Your task to perform on an android device: turn off location history Image 0: 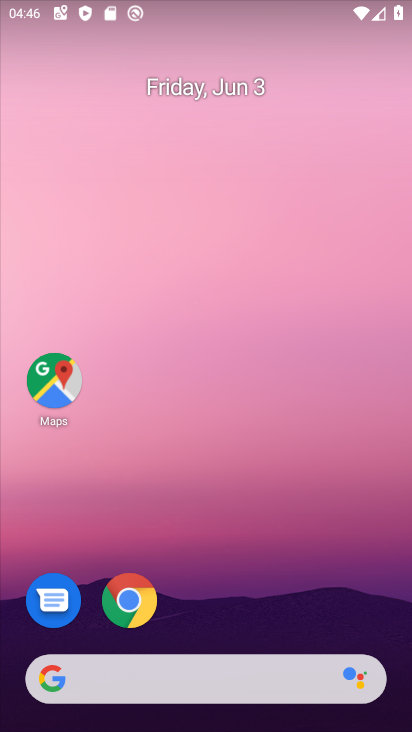
Step 0: drag from (233, 621) to (287, 154)
Your task to perform on an android device: turn off location history Image 1: 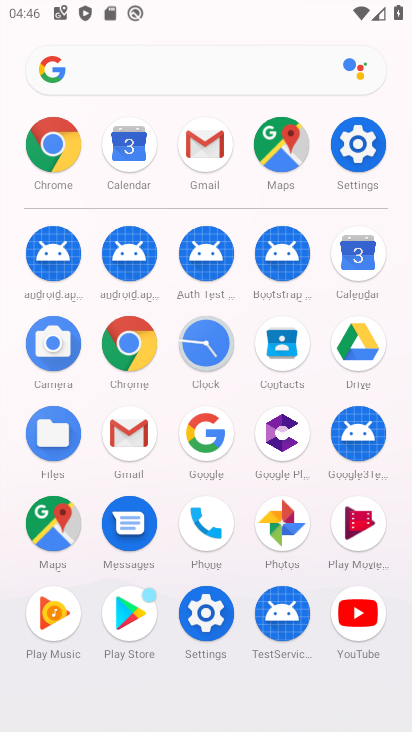
Step 1: click (359, 165)
Your task to perform on an android device: turn off location history Image 2: 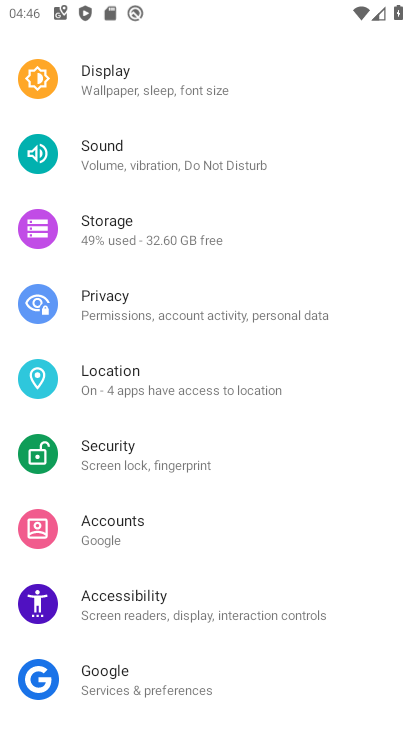
Step 2: click (151, 366)
Your task to perform on an android device: turn off location history Image 3: 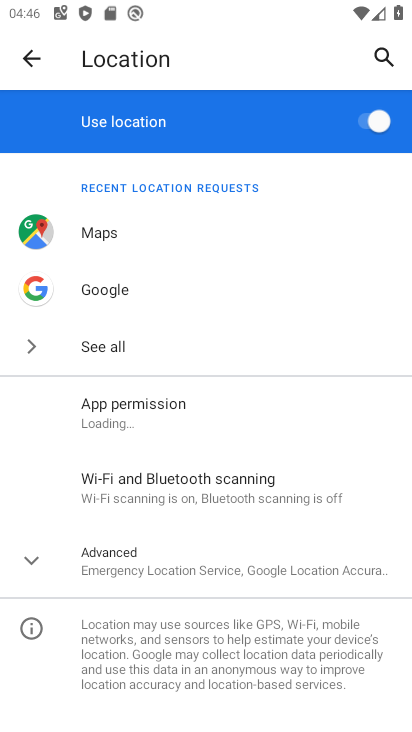
Step 3: click (173, 568)
Your task to perform on an android device: turn off location history Image 4: 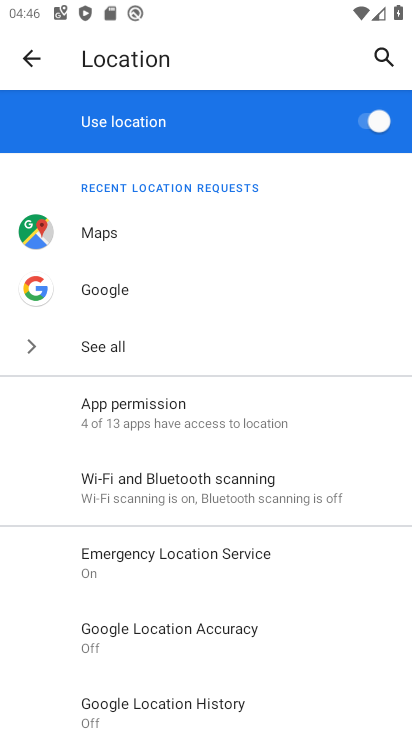
Step 4: drag from (166, 625) to (179, 512)
Your task to perform on an android device: turn off location history Image 5: 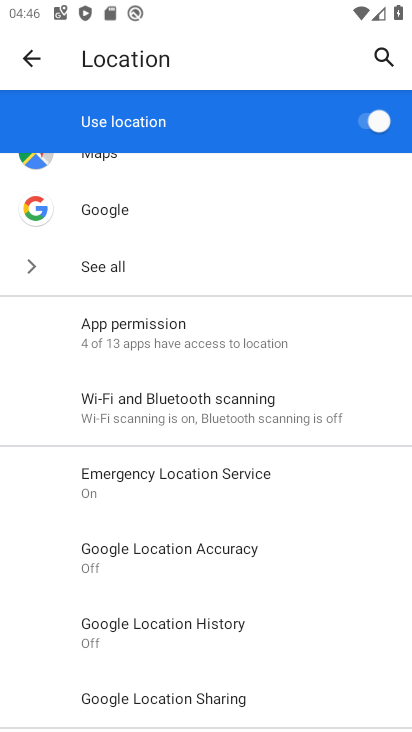
Step 5: click (156, 639)
Your task to perform on an android device: turn off location history Image 6: 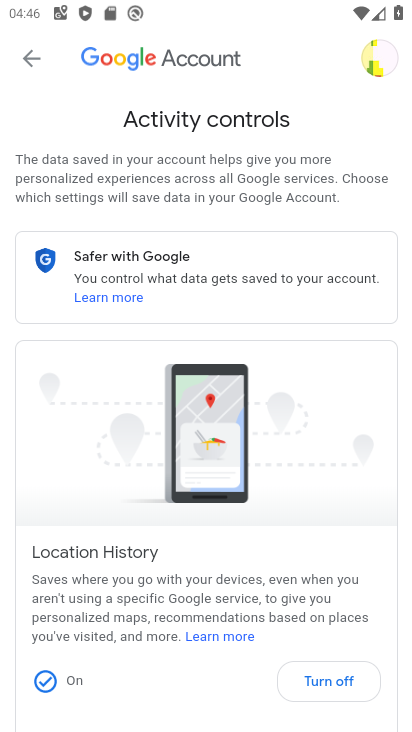
Step 6: click (236, 498)
Your task to perform on an android device: turn off location history Image 7: 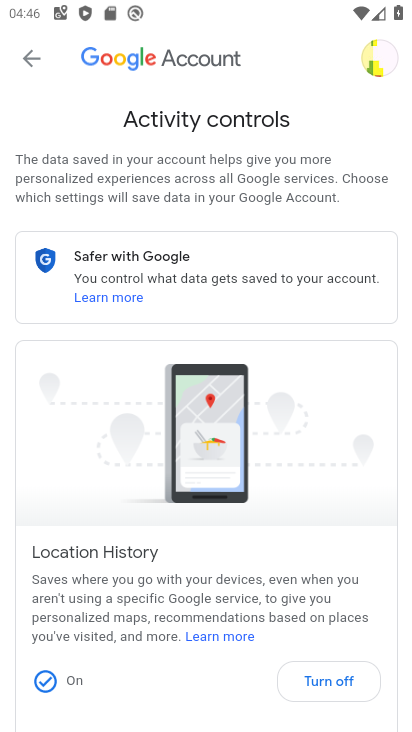
Step 7: click (314, 671)
Your task to perform on an android device: turn off location history Image 8: 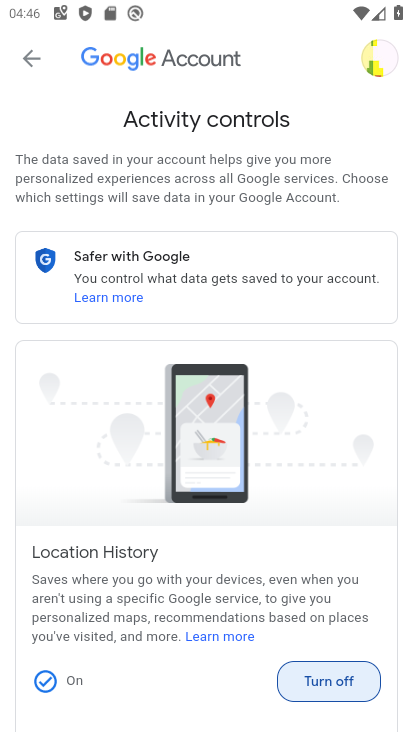
Step 8: drag from (311, 655) to (323, 443)
Your task to perform on an android device: turn off location history Image 9: 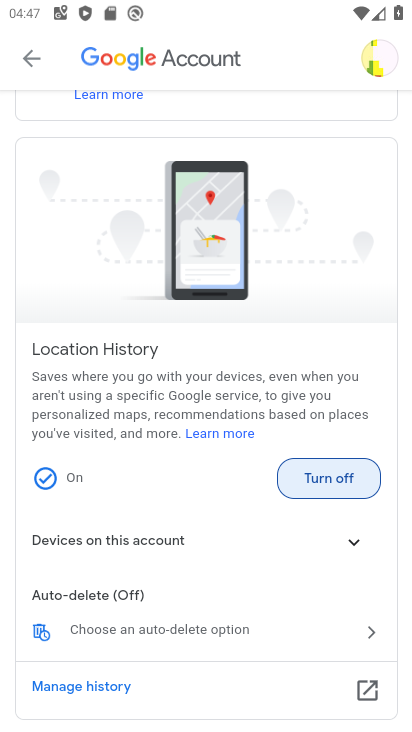
Step 9: click (316, 474)
Your task to perform on an android device: turn off location history Image 10: 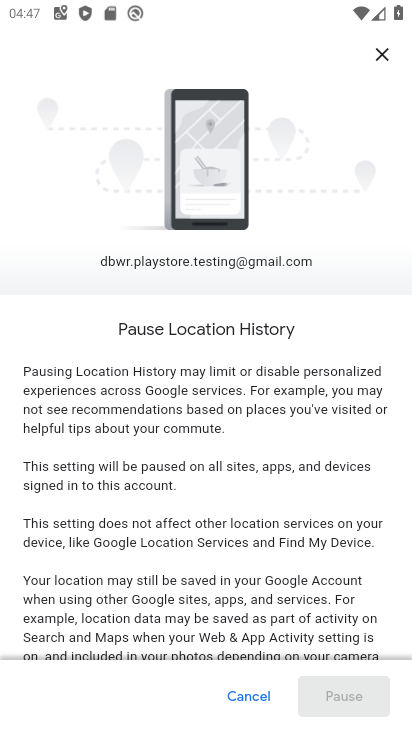
Step 10: drag from (202, 633) to (265, 389)
Your task to perform on an android device: turn off location history Image 11: 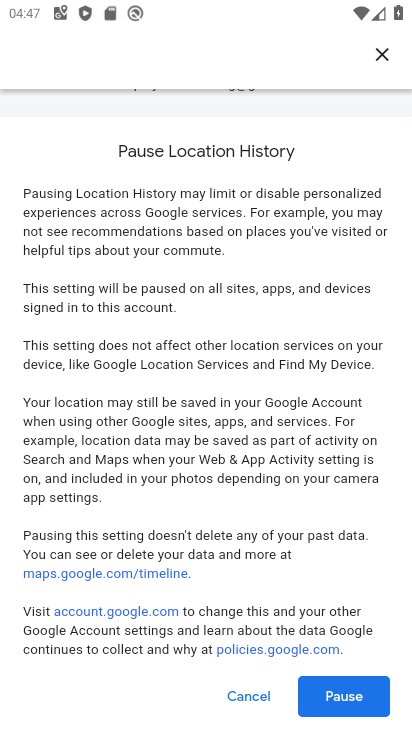
Step 11: click (355, 697)
Your task to perform on an android device: turn off location history Image 12: 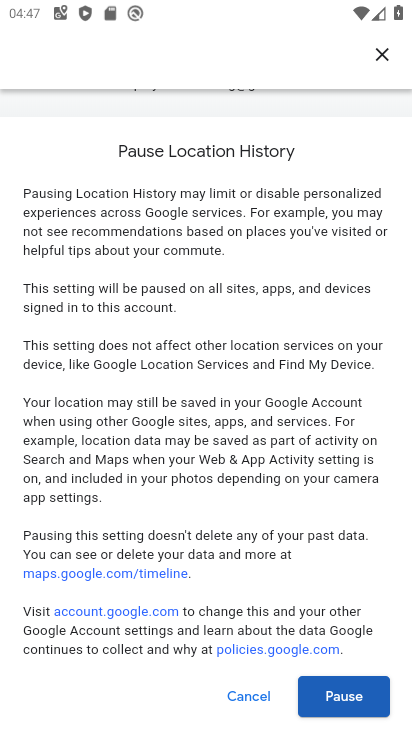
Step 12: click (328, 700)
Your task to perform on an android device: turn off location history Image 13: 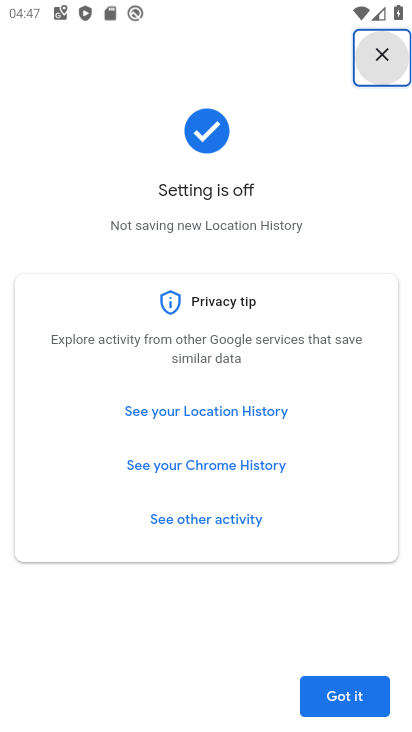
Step 13: click (337, 688)
Your task to perform on an android device: turn off location history Image 14: 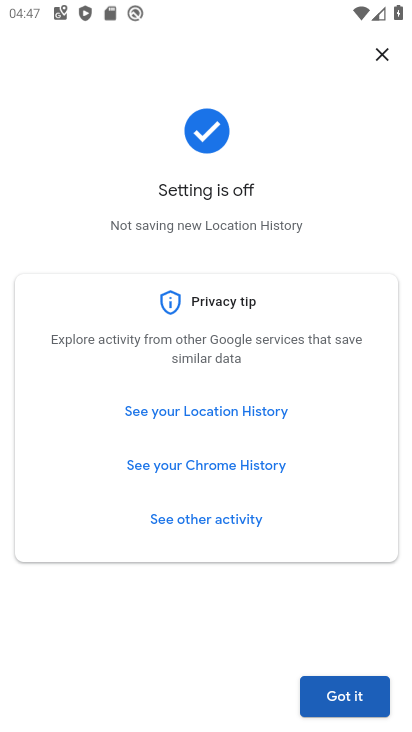
Step 14: click (338, 696)
Your task to perform on an android device: turn off location history Image 15: 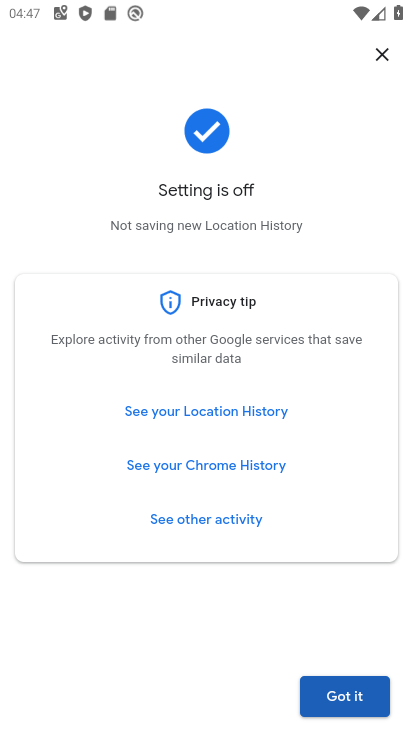
Step 15: click (338, 696)
Your task to perform on an android device: turn off location history Image 16: 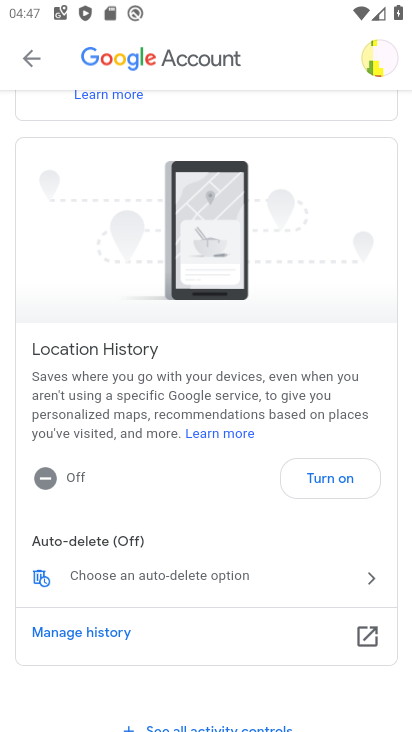
Step 16: task complete